Your task to perform on an android device: Open notification settings Image 0: 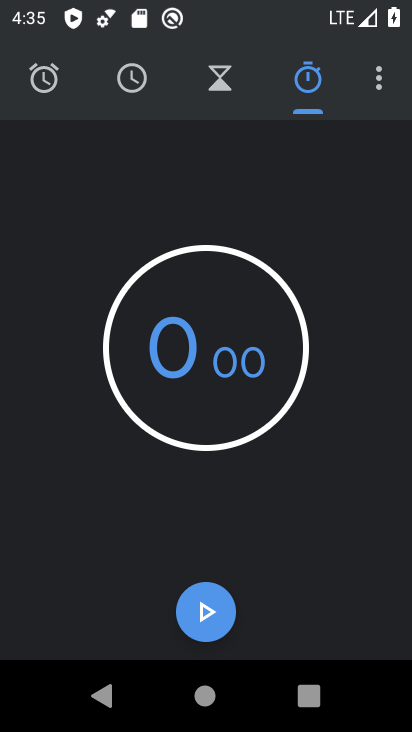
Step 0: press home button
Your task to perform on an android device: Open notification settings Image 1: 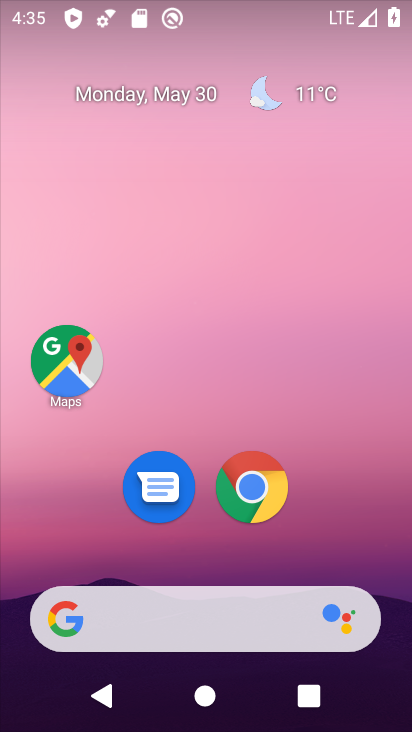
Step 1: drag from (398, 643) to (334, 165)
Your task to perform on an android device: Open notification settings Image 2: 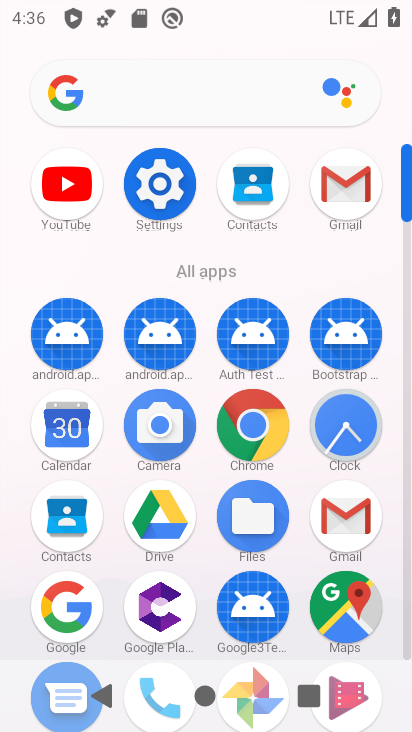
Step 2: click (410, 650)
Your task to perform on an android device: Open notification settings Image 3: 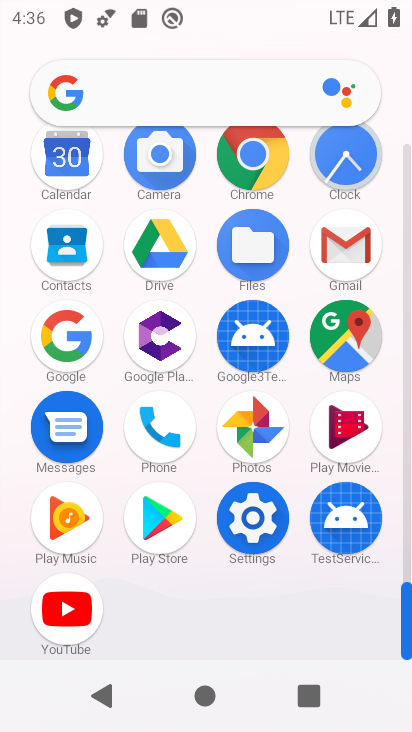
Step 3: click (252, 521)
Your task to perform on an android device: Open notification settings Image 4: 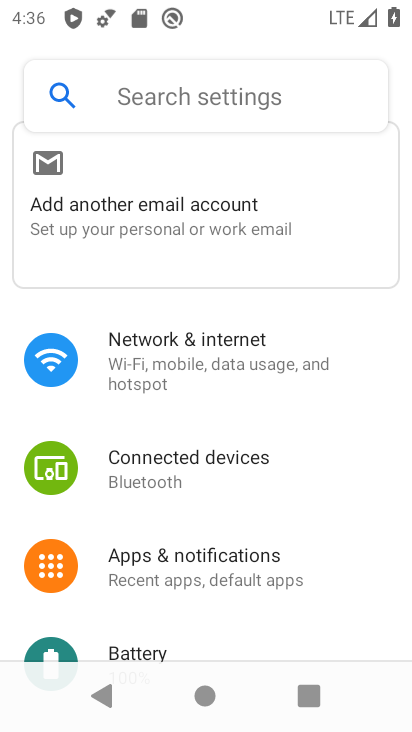
Step 4: click (223, 562)
Your task to perform on an android device: Open notification settings Image 5: 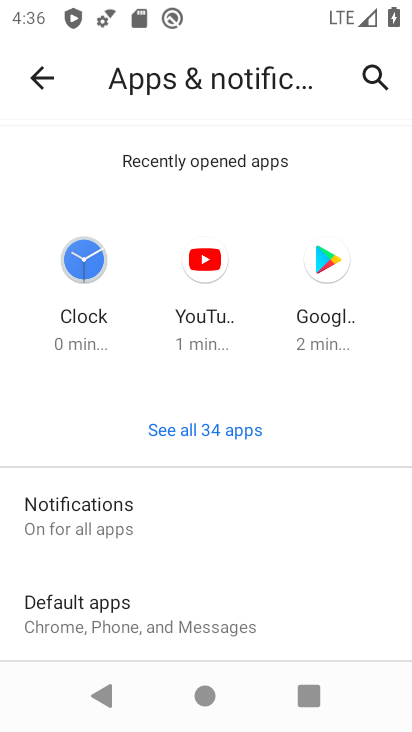
Step 5: drag from (269, 560) to (269, 366)
Your task to perform on an android device: Open notification settings Image 6: 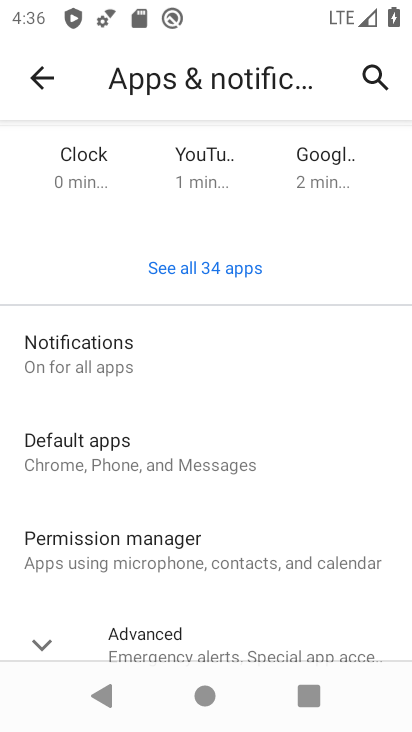
Step 6: click (82, 353)
Your task to perform on an android device: Open notification settings Image 7: 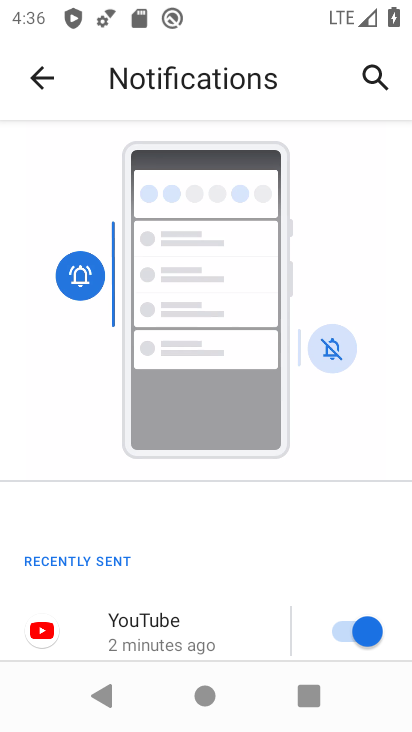
Step 7: drag from (281, 605) to (221, 221)
Your task to perform on an android device: Open notification settings Image 8: 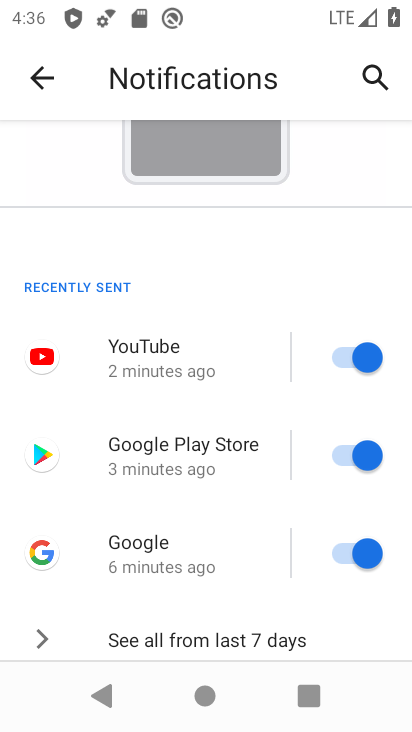
Step 8: drag from (289, 604) to (256, 282)
Your task to perform on an android device: Open notification settings Image 9: 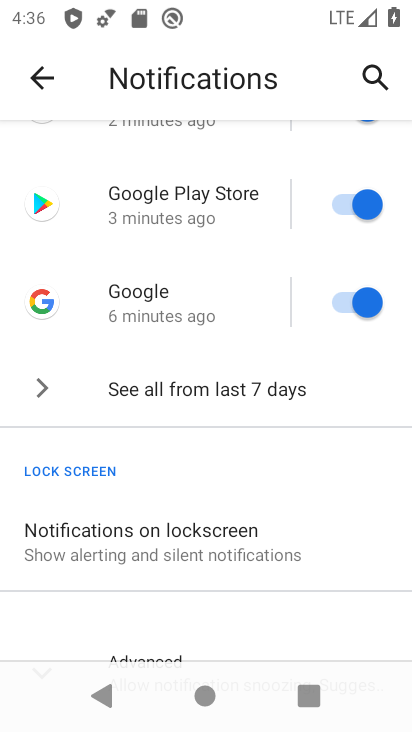
Step 9: drag from (284, 568) to (240, 175)
Your task to perform on an android device: Open notification settings Image 10: 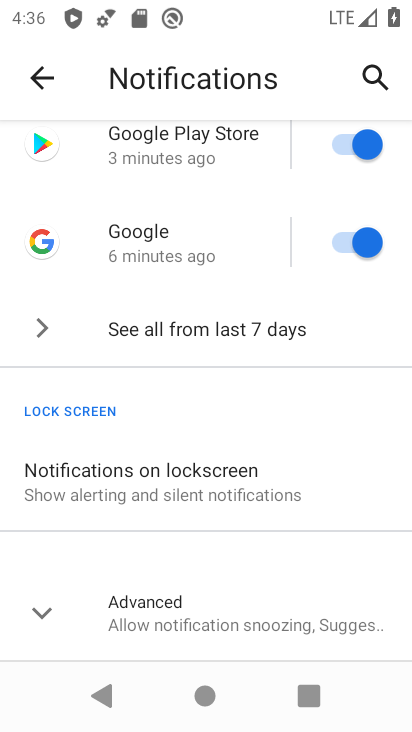
Step 10: click (38, 606)
Your task to perform on an android device: Open notification settings Image 11: 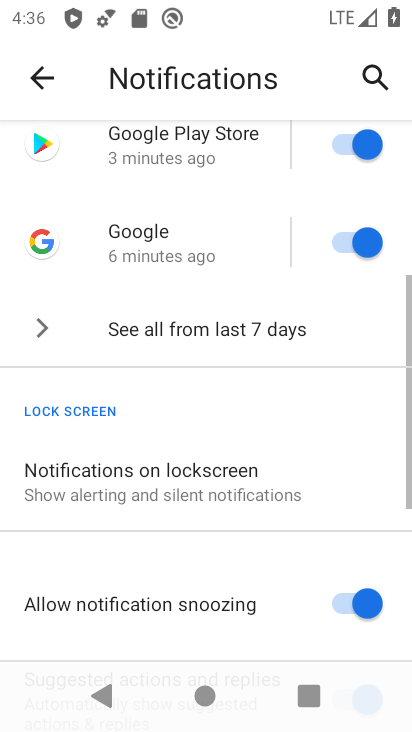
Step 11: task complete